Your task to perform on an android device: turn notification dots on Image 0: 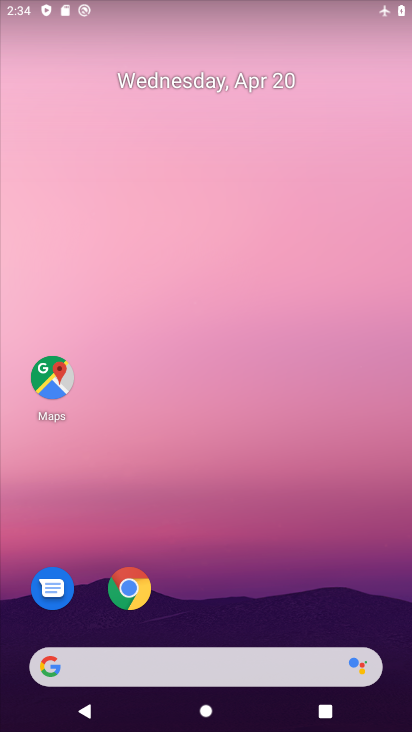
Step 0: drag from (236, 559) to (189, 41)
Your task to perform on an android device: turn notification dots on Image 1: 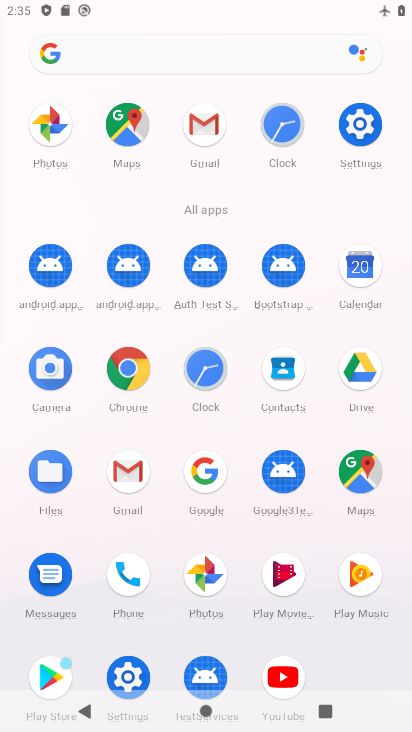
Step 1: click (359, 124)
Your task to perform on an android device: turn notification dots on Image 2: 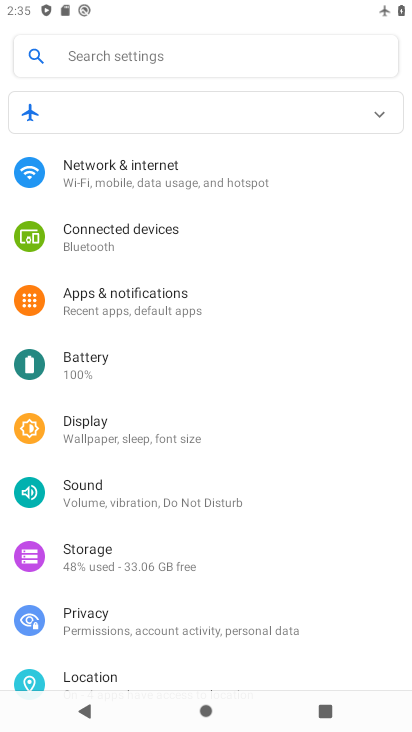
Step 2: click (173, 299)
Your task to perform on an android device: turn notification dots on Image 3: 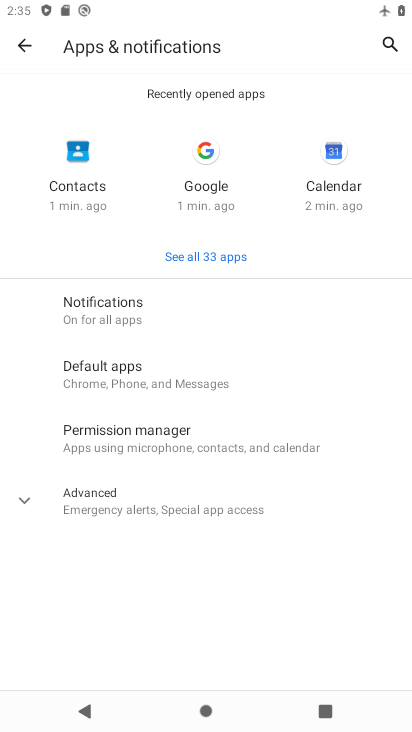
Step 3: click (139, 310)
Your task to perform on an android device: turn notification dots on Image 4: 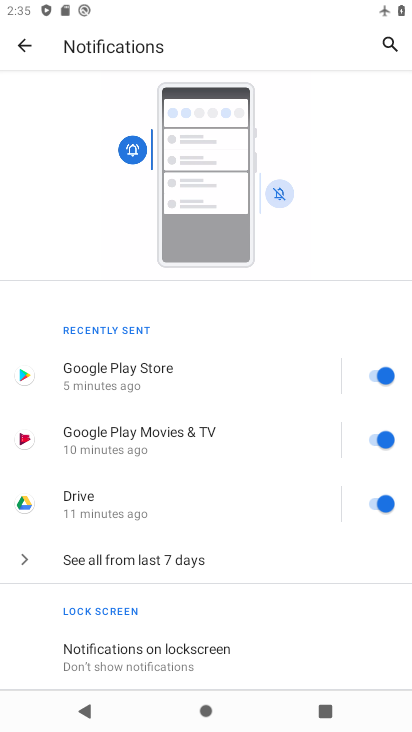
Step 4: drag from (277, 638) to (220, 262)
Your task to perform on an android device: turn notification dots on Image 5: 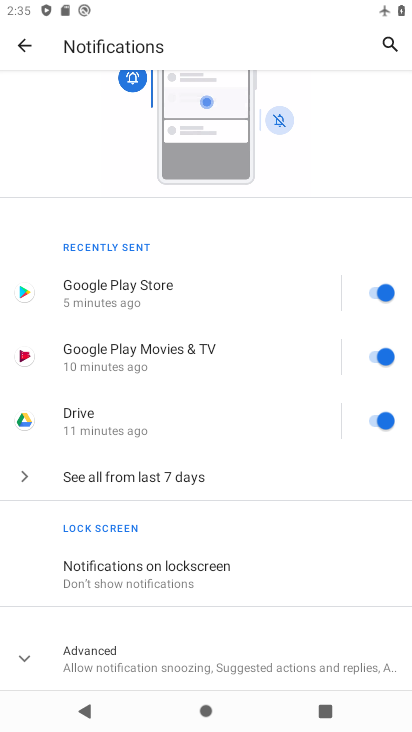
Step 5: click (197, 652)
Your task to perform on an android device: turn notification dots on Image 6: 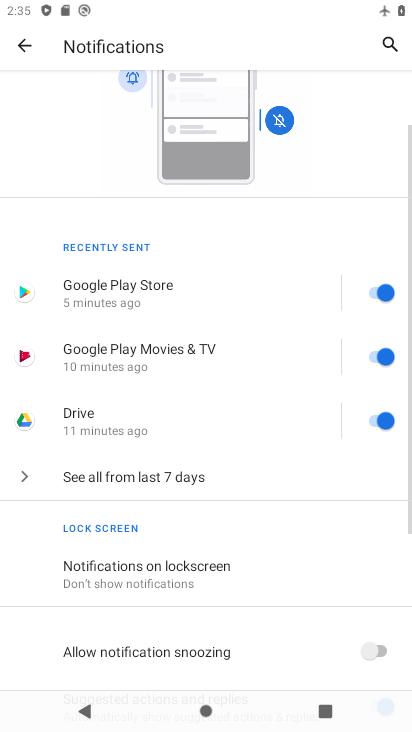
Step 6: task complete